Your task to perform on an android device: open chrome and create a bookmark for the current page Image 0: 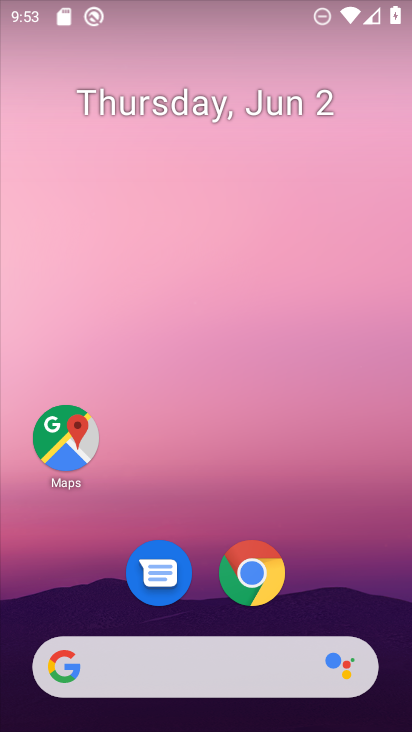
Step 0: click (250, 575)
Your task to perform on an android device: open chrome and create a bookmark for the current page Image 1: 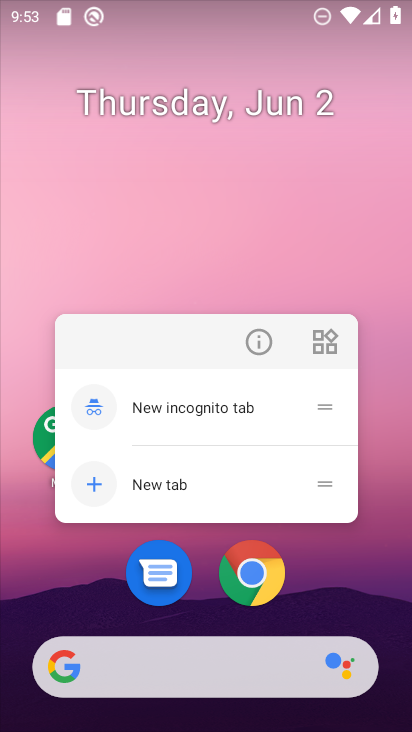
Step 1: click (249, 573)
Your task to perform on an android device: open chrome and create a bookmark for the current page Image 2: 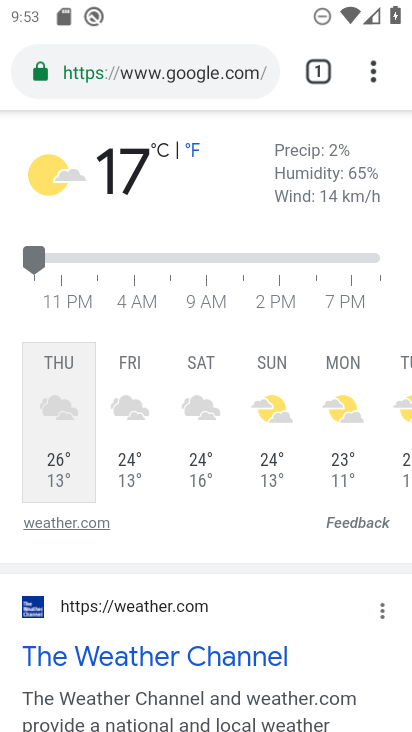
Step 2: task complete